Your task to perform on an android device: Open Google Chrome and click the shortcut for Amazon.com Image 0: 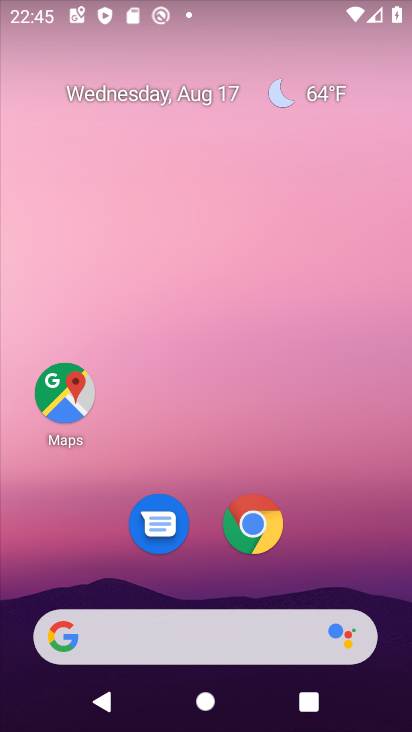
Step 0: click (259, 522)
Your task to perform on an android device: Open Google Chrome and click the shortcut for Amazon.com Image 1: 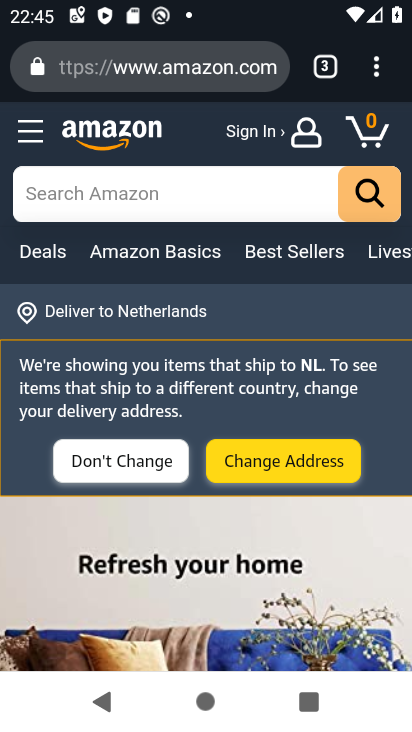
Step 1: task complete